Your task to perform on an android device: check the backup settings in the google photos Image 0: 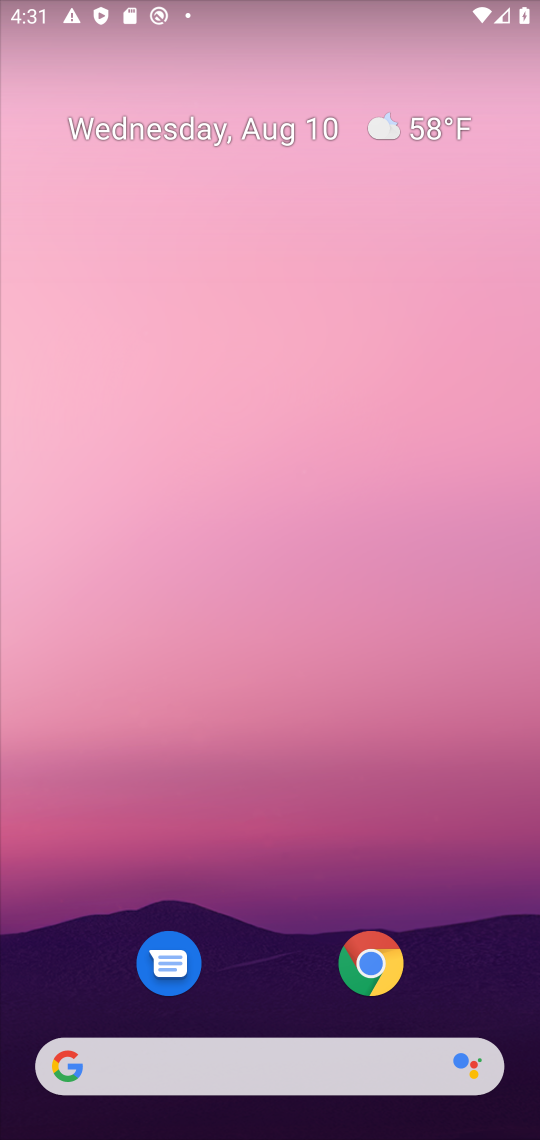
Step 0: drag from (316, 936) to (305, 79)
Your task to perform on an android device: check the backup settings in the google photos Image 1: 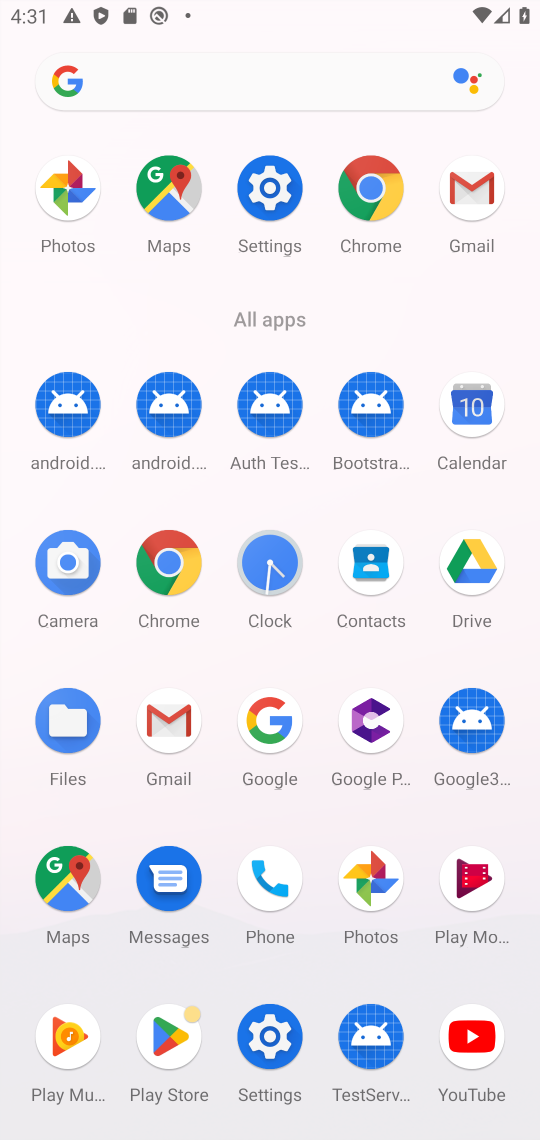
Step 1: click (370, 880)
Your task to perform on an android device: check the backup settings in the google photos Image 2: 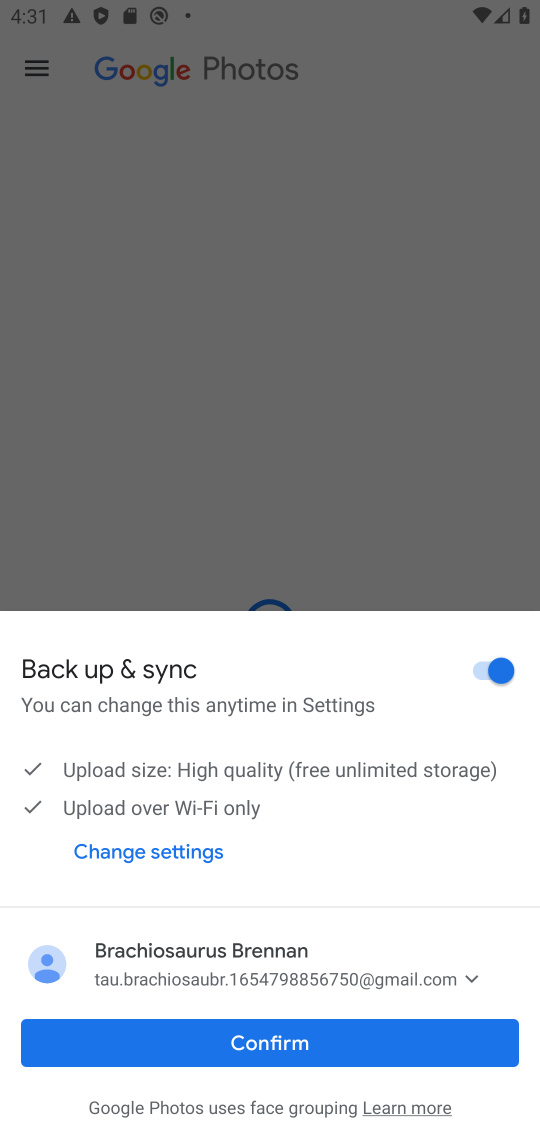
Step 2: click (348, 1036)
Your task to perform on an android device: check the backup settings in the google photos Image 3: 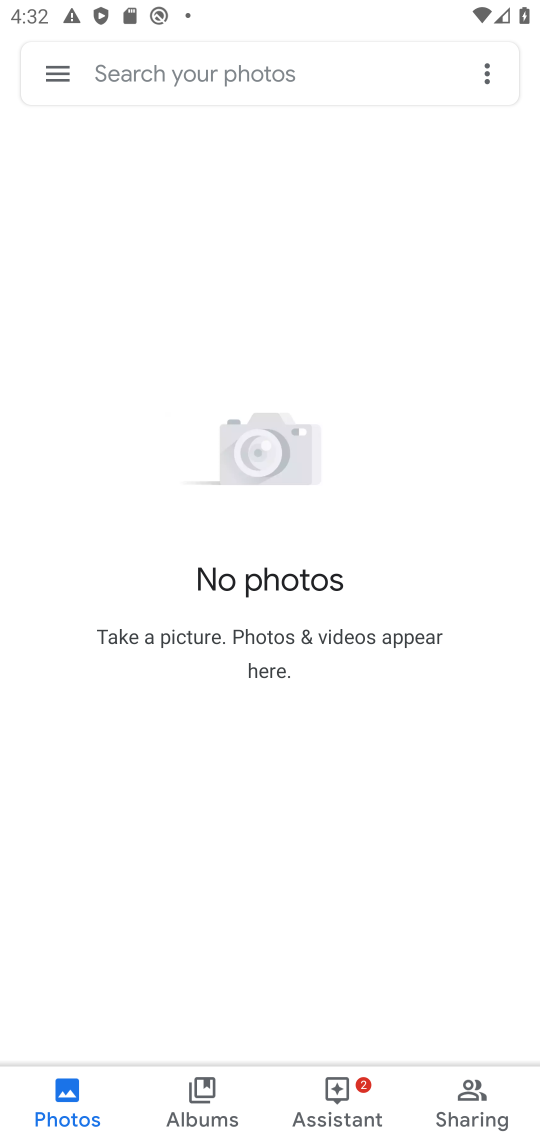
Step 3: click (32, 75)
Your task to perform on an android device: check the backup settings in the google photos Image 4: 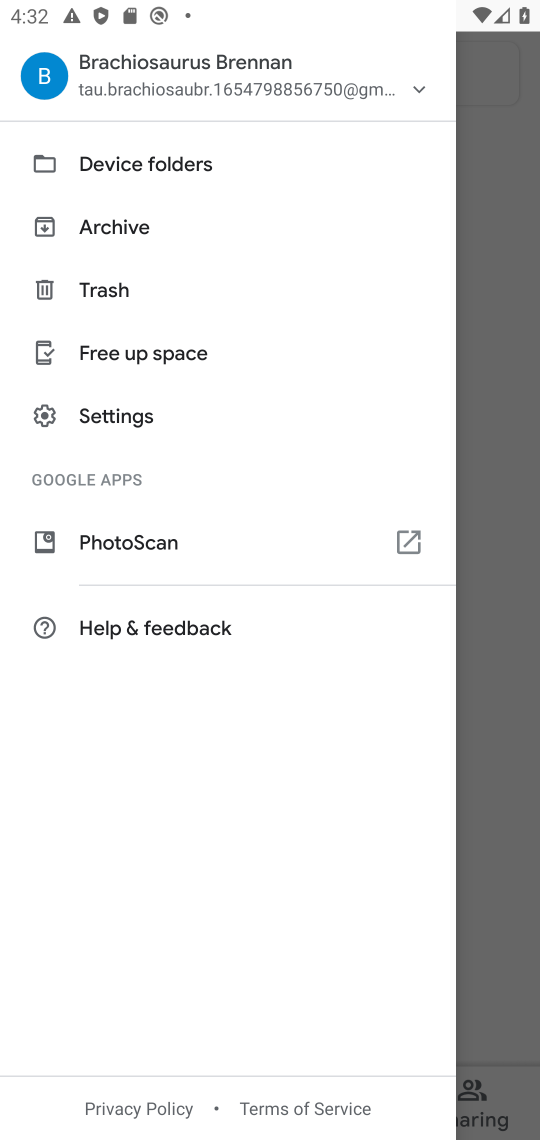
Step 4: click (146, 417)
Your task to perform on an android device: check the backup settings in the google photos Image 5: 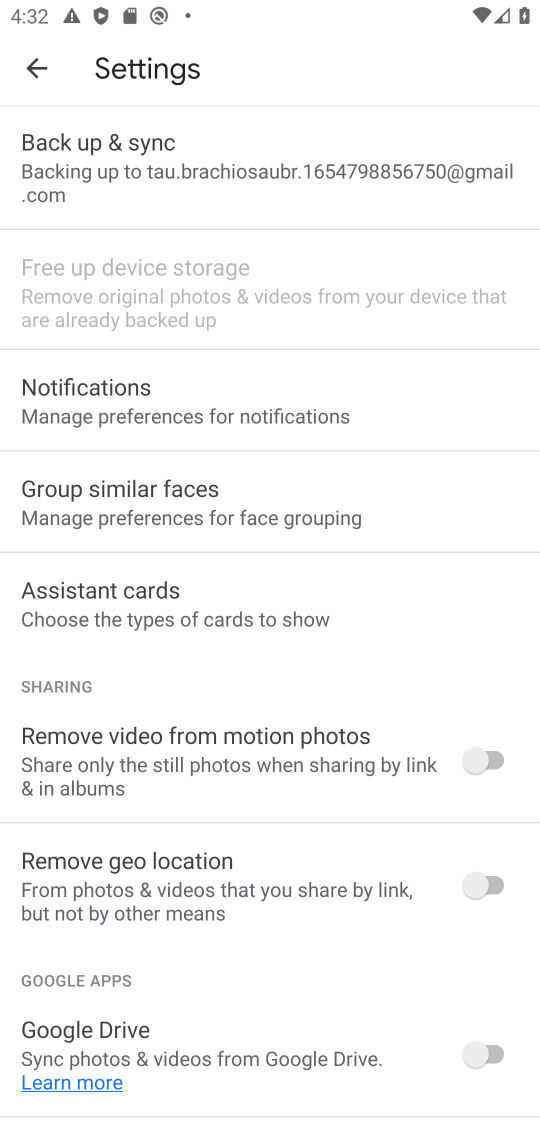
Step 5: drag from (118, 858) to (2, 977)
Your task to perform on an android device: check the backup settings in the google photos Image 6: 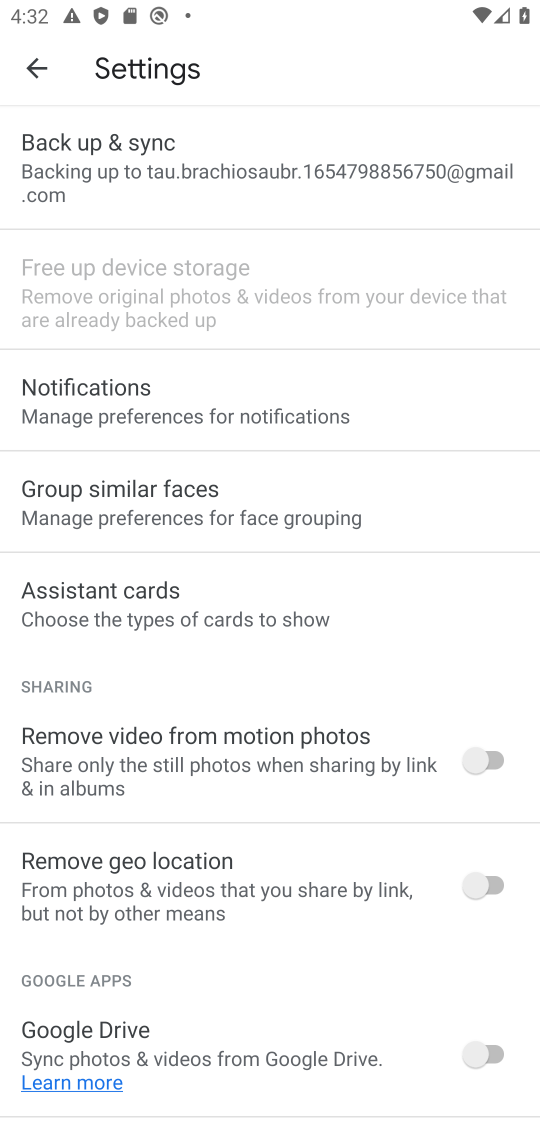
Step 6: click (54, 163)
Your task to perform on an android device: check the backup settings in the google photos Image 7: 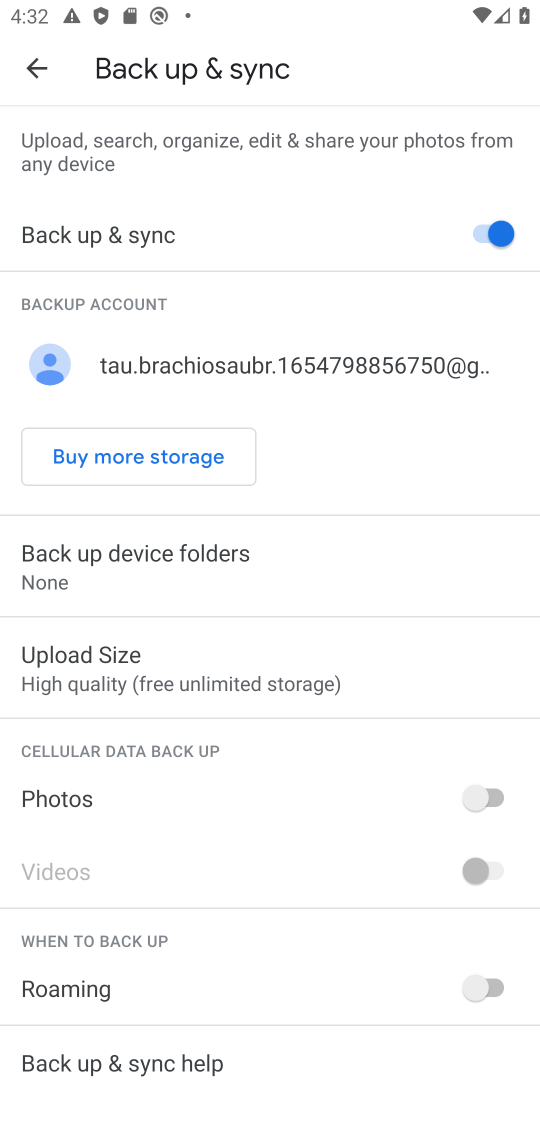
Step 7: task complete